Your task to perform on an android device: turn on the 12-hour format for clock Image 0: 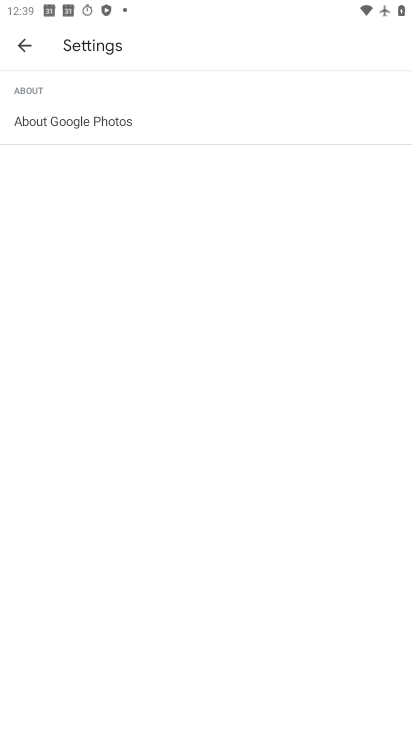
Step 0: press home button
Your task to perform on an android device: turn on the 12-hour format for clock Image 1: 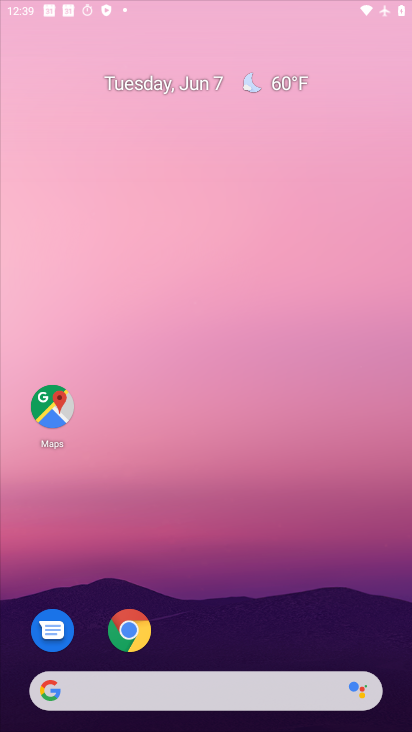
Step 1: drag from (348, 620) to (291, 21)
Your task to perform on an android device: turn on the 12-hour format for clock Image 2: 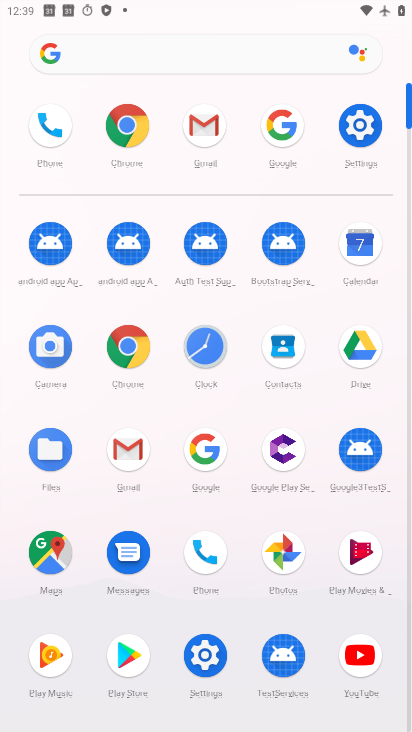
Step 2: click (200, 360)
Your task to perform on an android device: turn on the 12-hour format for clock Image 3: 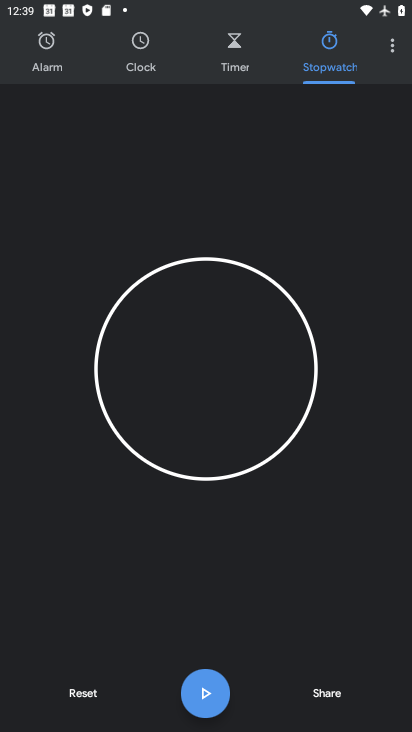
Step 3: click (391, 40)
Your task to perform on an android device: turn on the 12-hour format for clock Image 4: 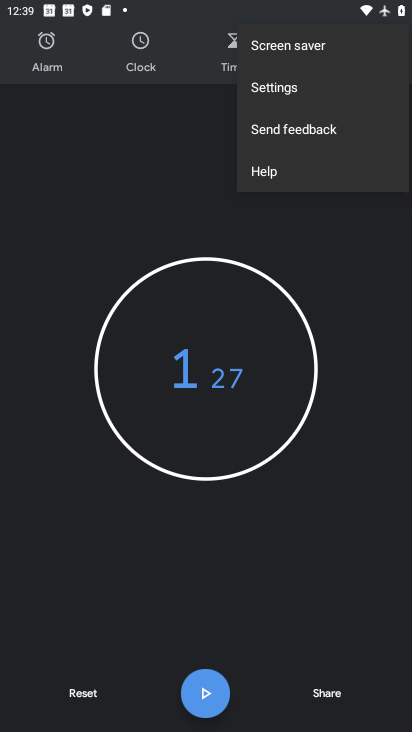
Step 4: click (278, 101)
Your task to perform on an android device: turn on the 12-hour format for clock Image 5: 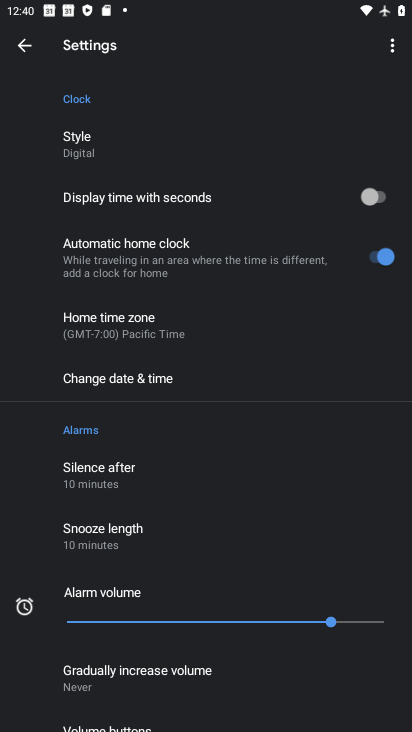
Step 5: click (168, 362)
Your task to perform on an android device: turn on the 12-hour format for clock Image 6: 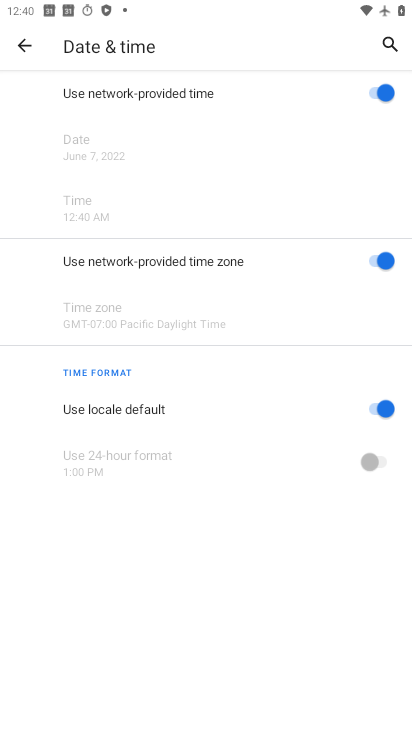
Step 6: task complete